Your task to perform on an android device: add a contact Image 0: 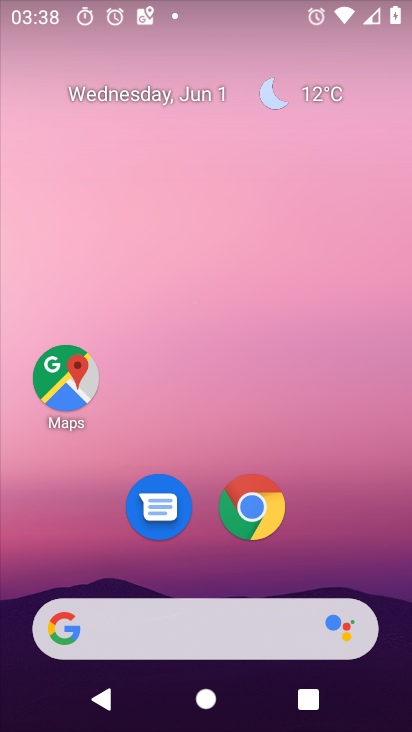
Step 0: drag from (321, 542) to (358, 23)
Your task to perform on an android device: add a contact Image 1: 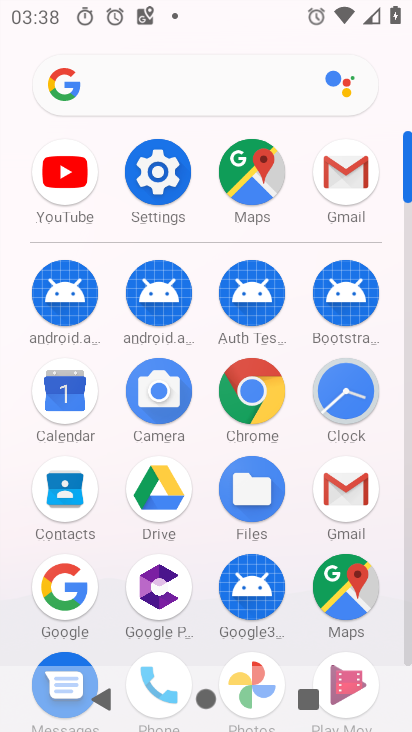
Step 1: click (58, 497)
Your task to perform on an android device: add a contact Image 2: 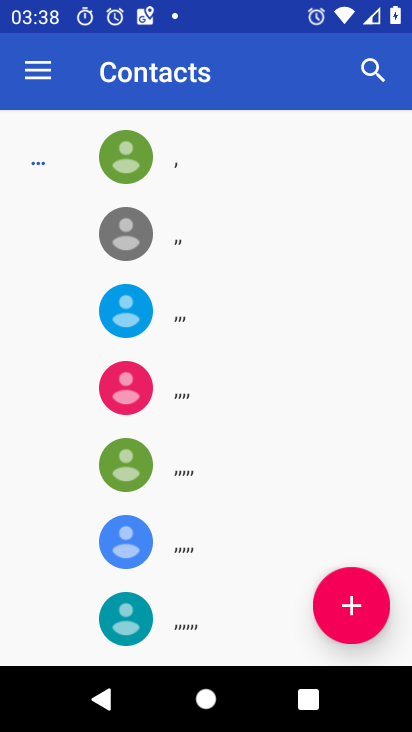
Step 2: click (354, 606)
Your task to perform on an android device: add a contact Image 3: 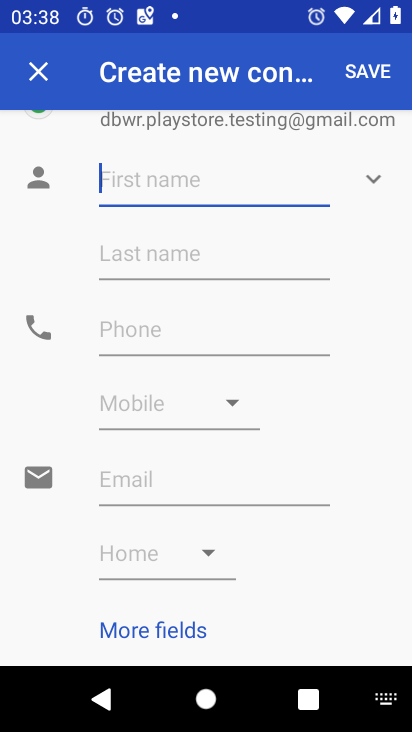
Step 3: click (118, 190)
Your task to perform on an android device: add a contact Image 4: 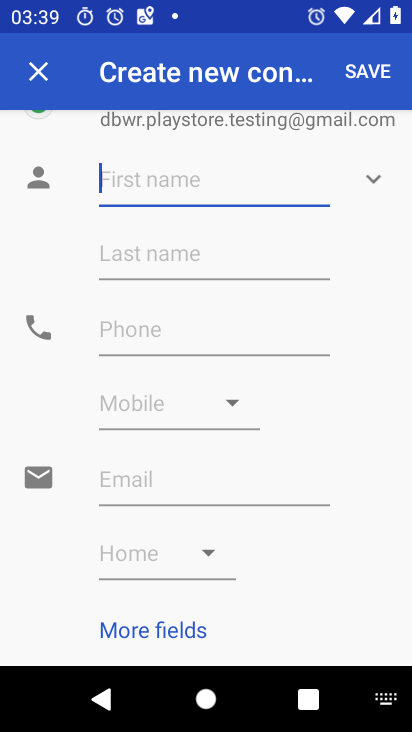
Step 4: type "ramesh"
Your task to perform on an android device: add a contact Image 5: 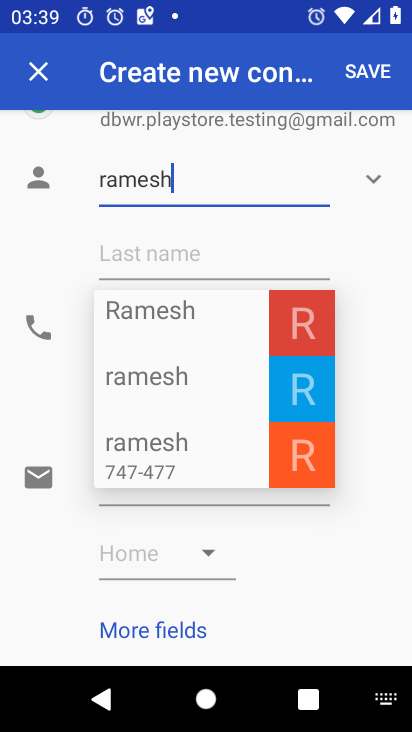
Step 5: click (400, 351)
Your task to perform on an android device: add a contact Image 6: 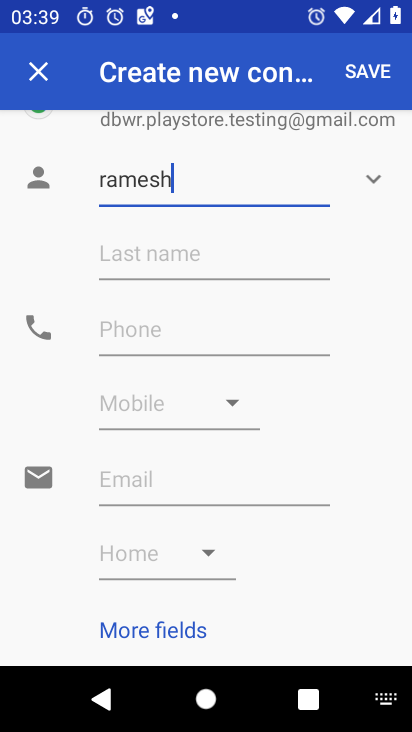
Step 6: click (165, 323)
Your task to perform on an android device: add a contact Image 7: 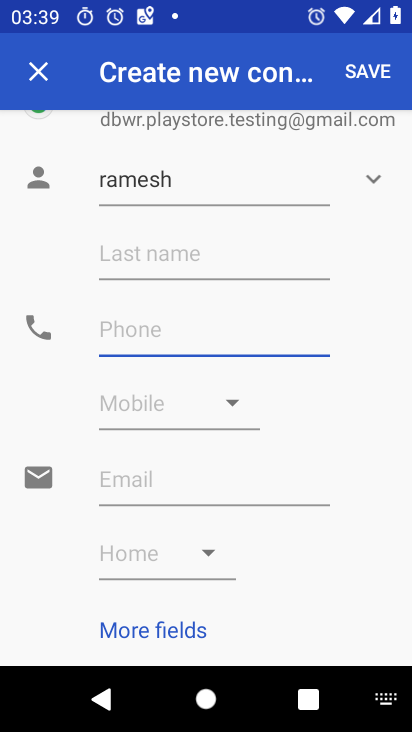
Step 7: type "9877588664"
Your task to perform on an android device: add a contact Image 8: 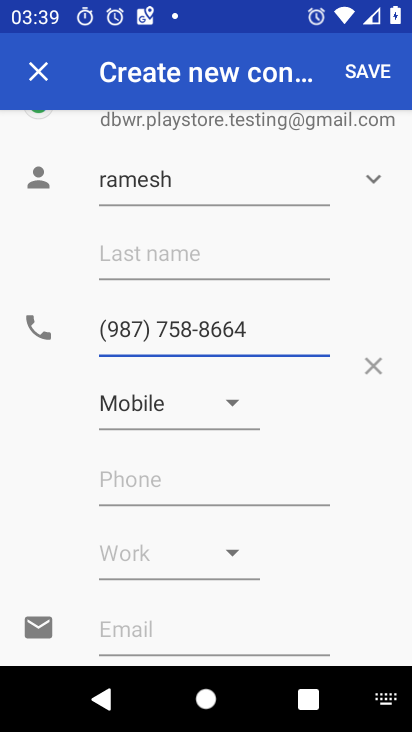
Step 8: click (359, 83)
Your task to perform on an android device: add a contact Image 9: 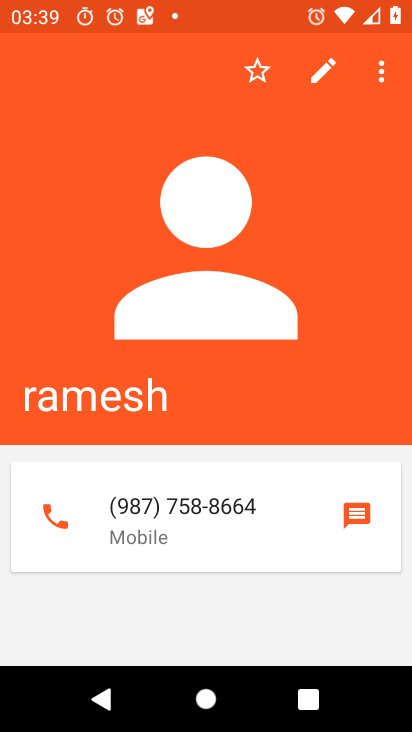
Step 9: task complete